Your task to perform on an android device: find photos in the google photos app Image 0: 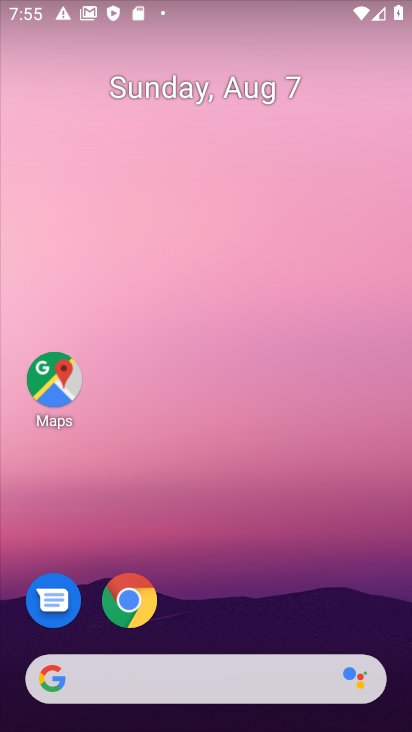
Step 0: click (186, 34)
Your task to perform on an android device: find photos in the google photos app Image 1: 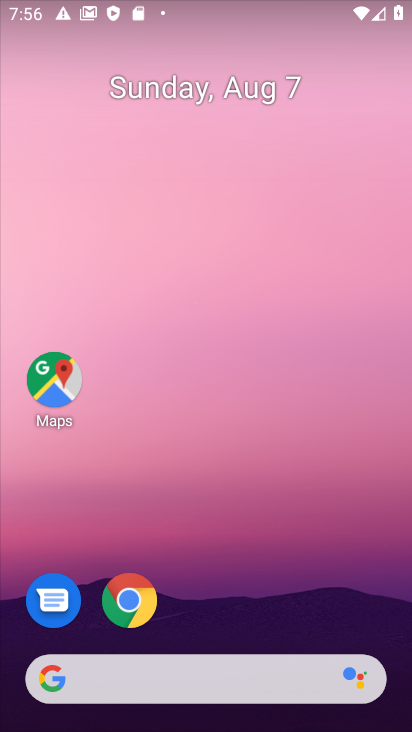
Step 1: drag from (185, 490) to (205, 217)
Your task to perform on an android device: find photos in the google photos app Image 2: 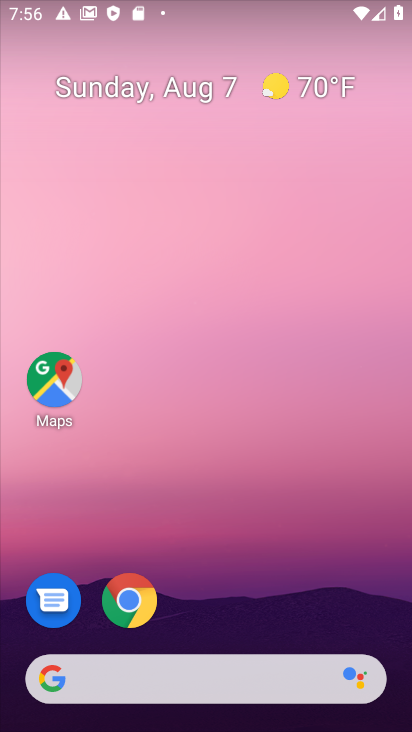
Step 2: drag from (222, 408) to (222, 146)
Your task to perform on an android device: find photos in the google photos app Image 3: 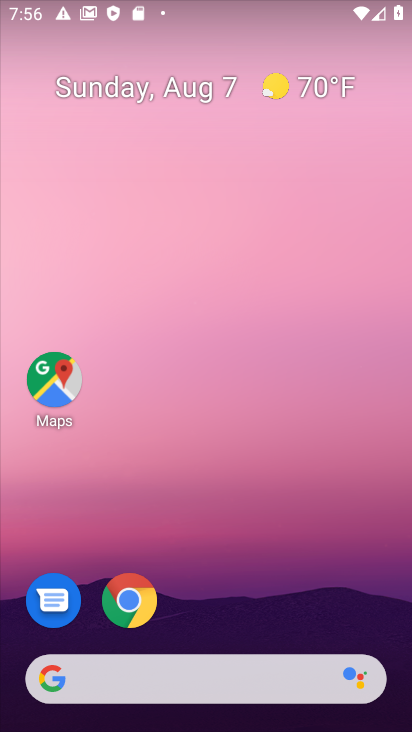
Step 3: drag from (212, 417) to (235, 42)
Your task to perform on an android device: find photos in the google photos app Image 4: 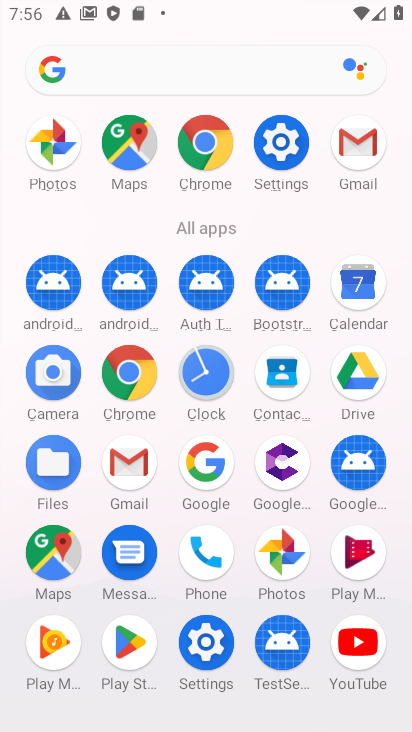
Step 4: click (288, 557)
Your task to perform on an android device: find photos in the google photos app Image 5: 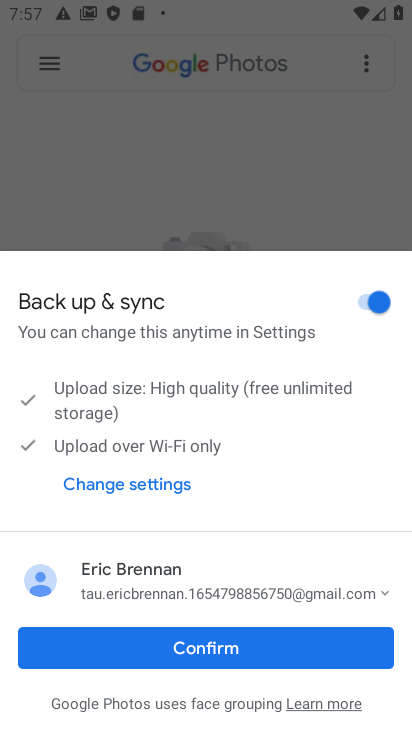
Step 5: click (208, 646)
Your task to perform on an android device: find photos in the google photos app Image 6: 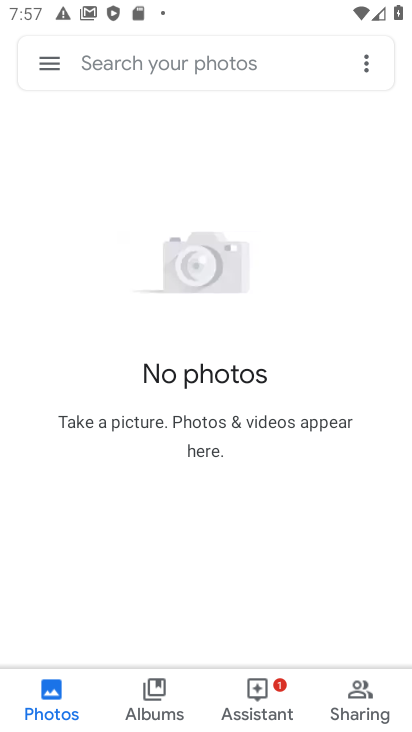
Step 6: task complete